Your task to perform on an android device: stop showing notifications on the lock screen Image 0: 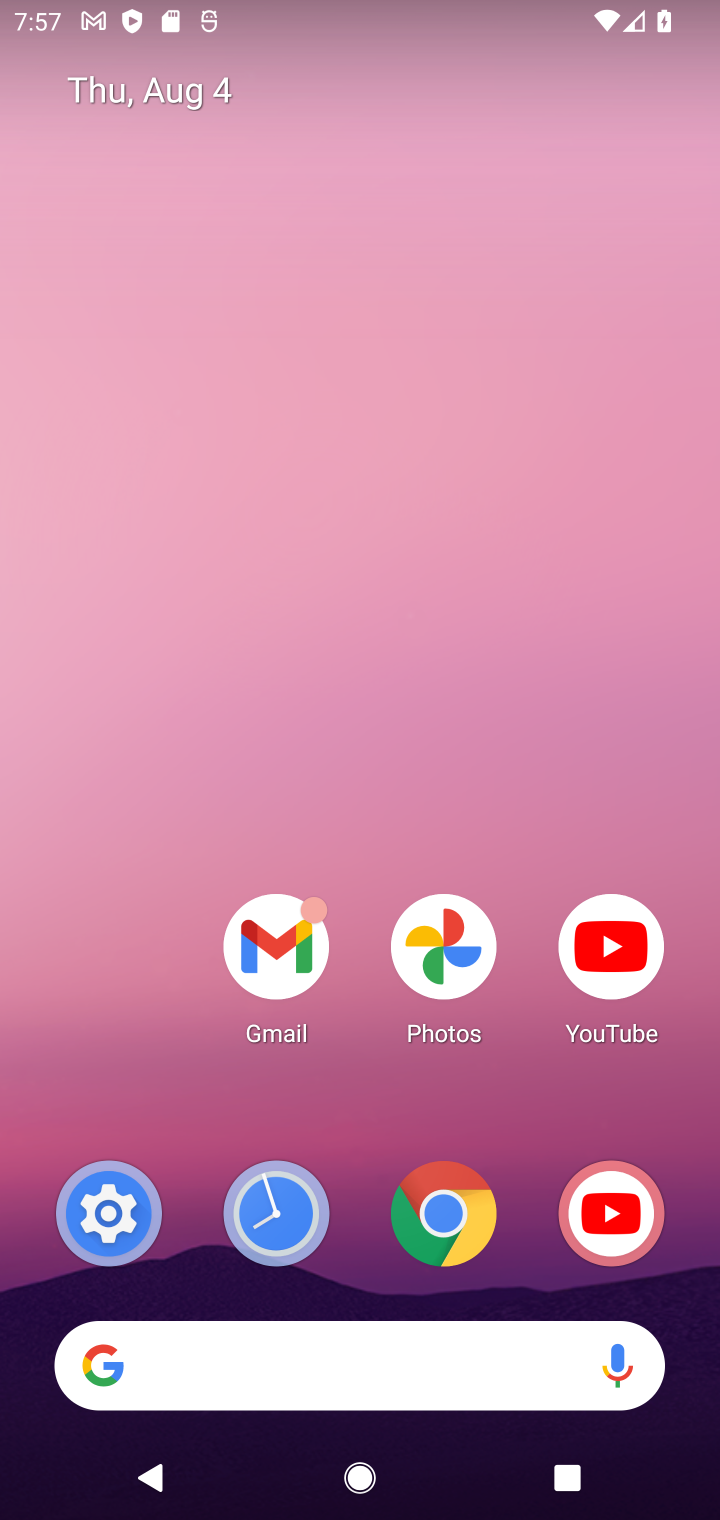
Step 0: click (149, 1222)
Your task to perform on an android device: stop showing notifications on the lock screen Image 1: 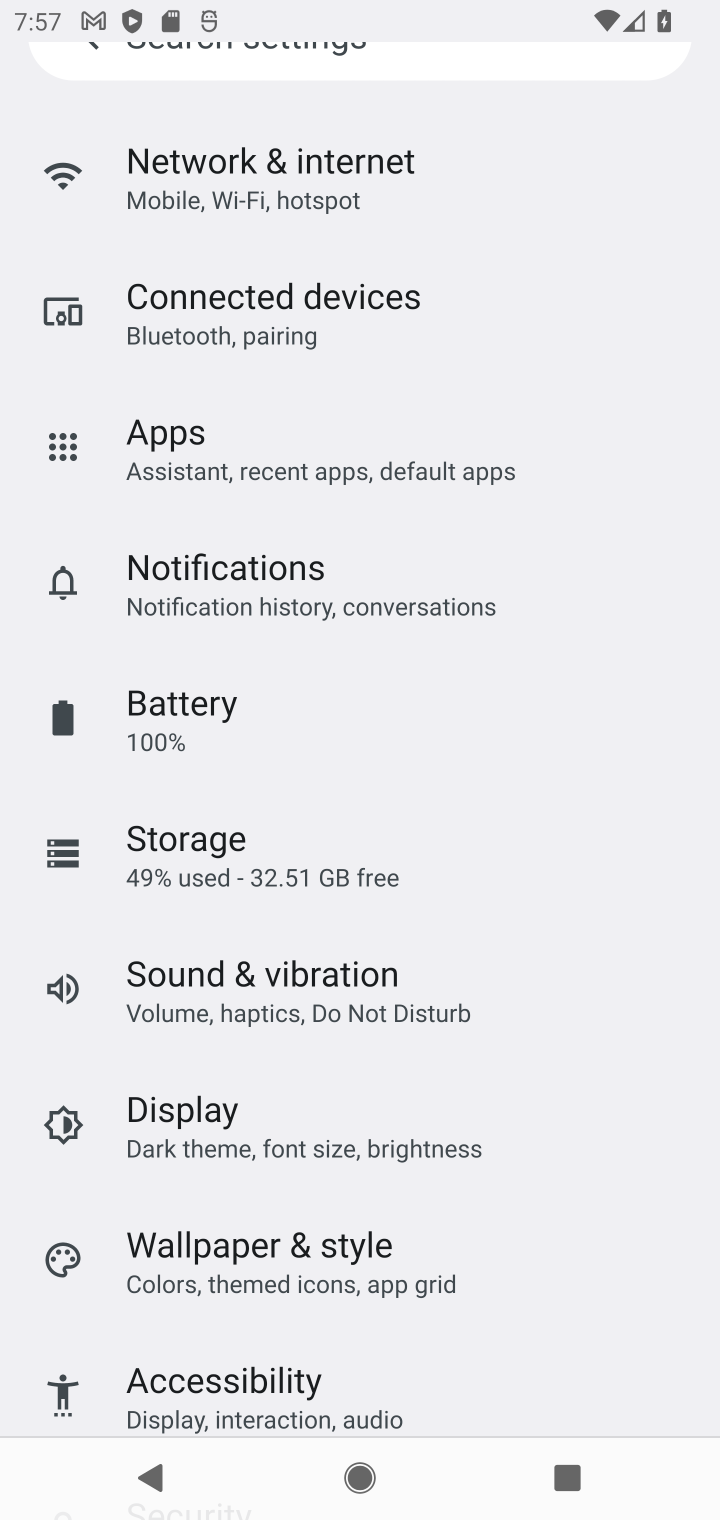
Step 1: click (203, 575)
Your task to perform on an android device: stop showing notifications on the lock screen Image 2: 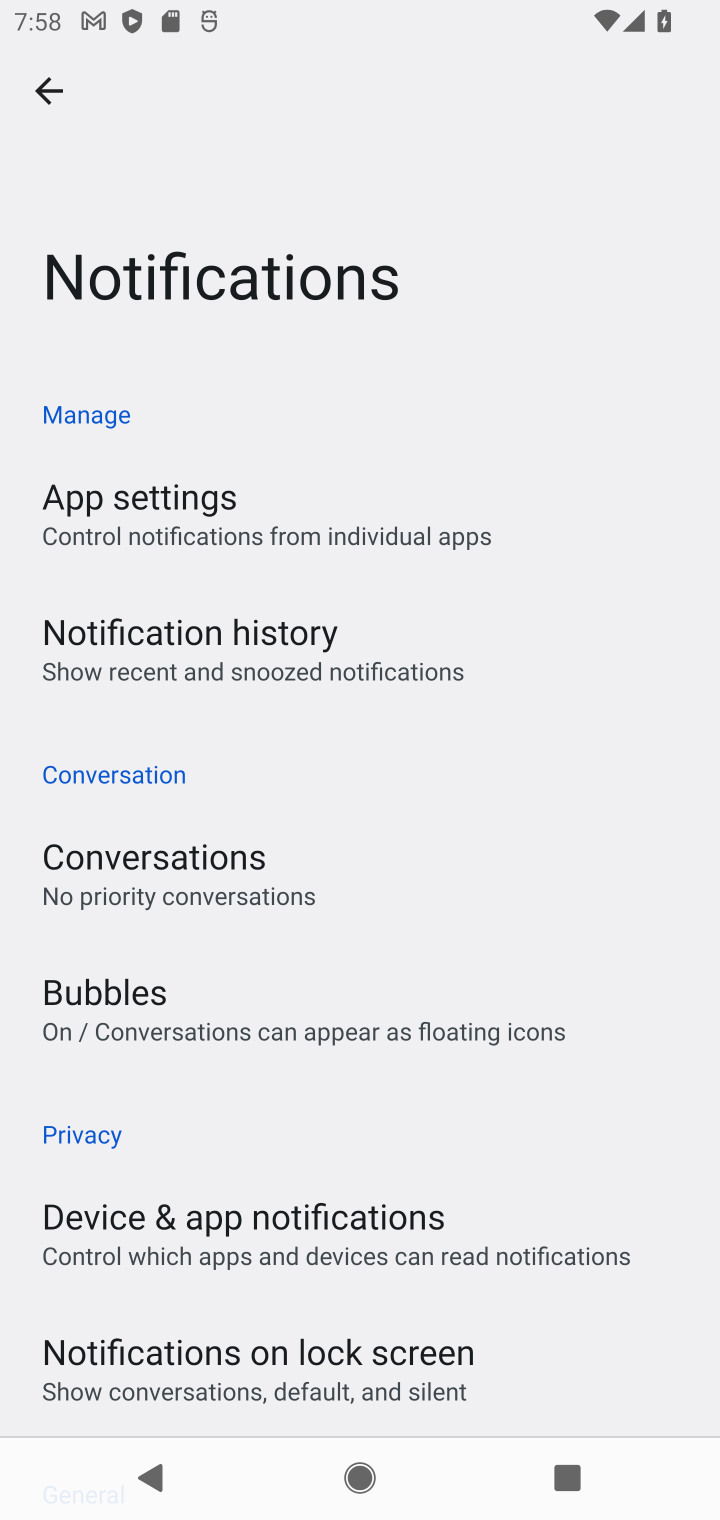
Step 2: click (410, 645)
Your task to perform on an android device: stop showing notifications on the lock screen Image 3: 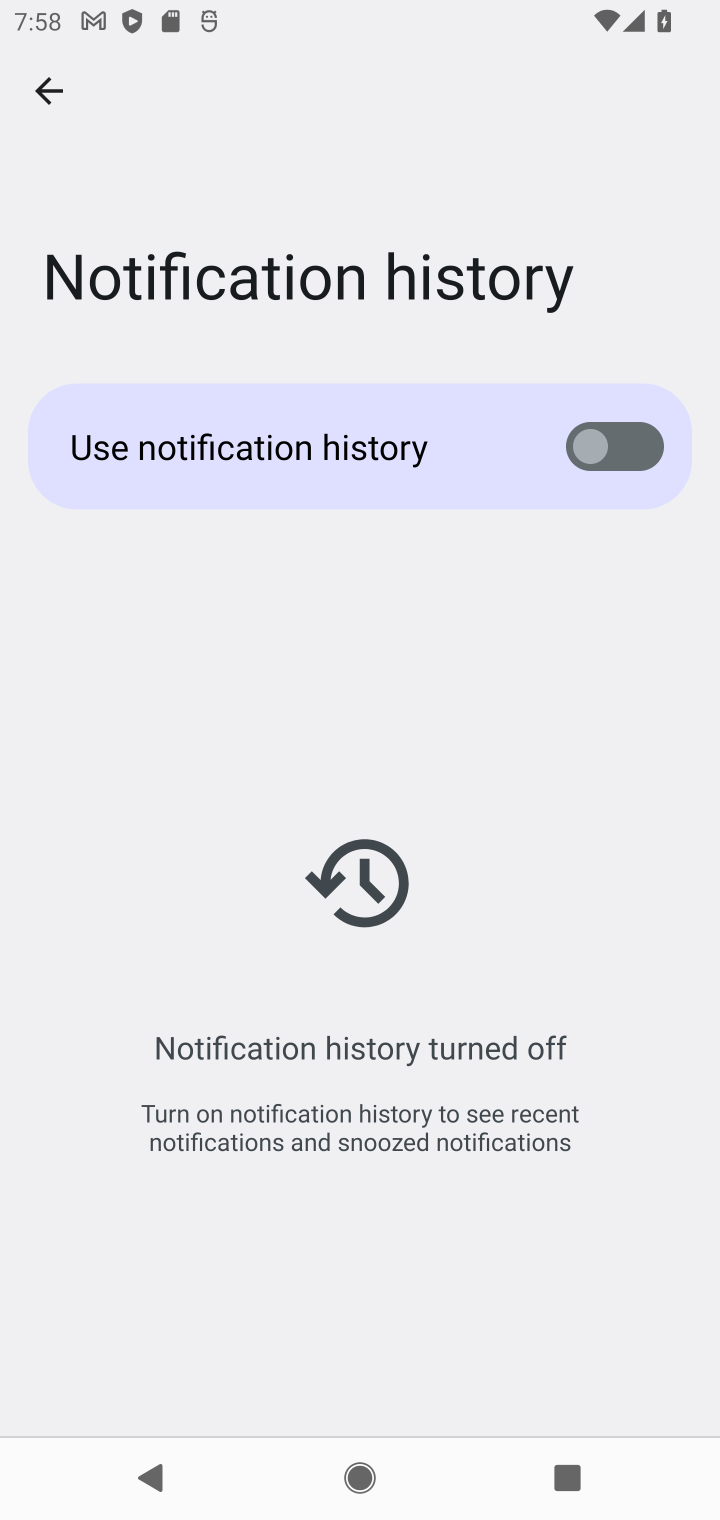
Step 3: task complete